Your task to perform on an android device: snooze an email in the gmail app Image 0: 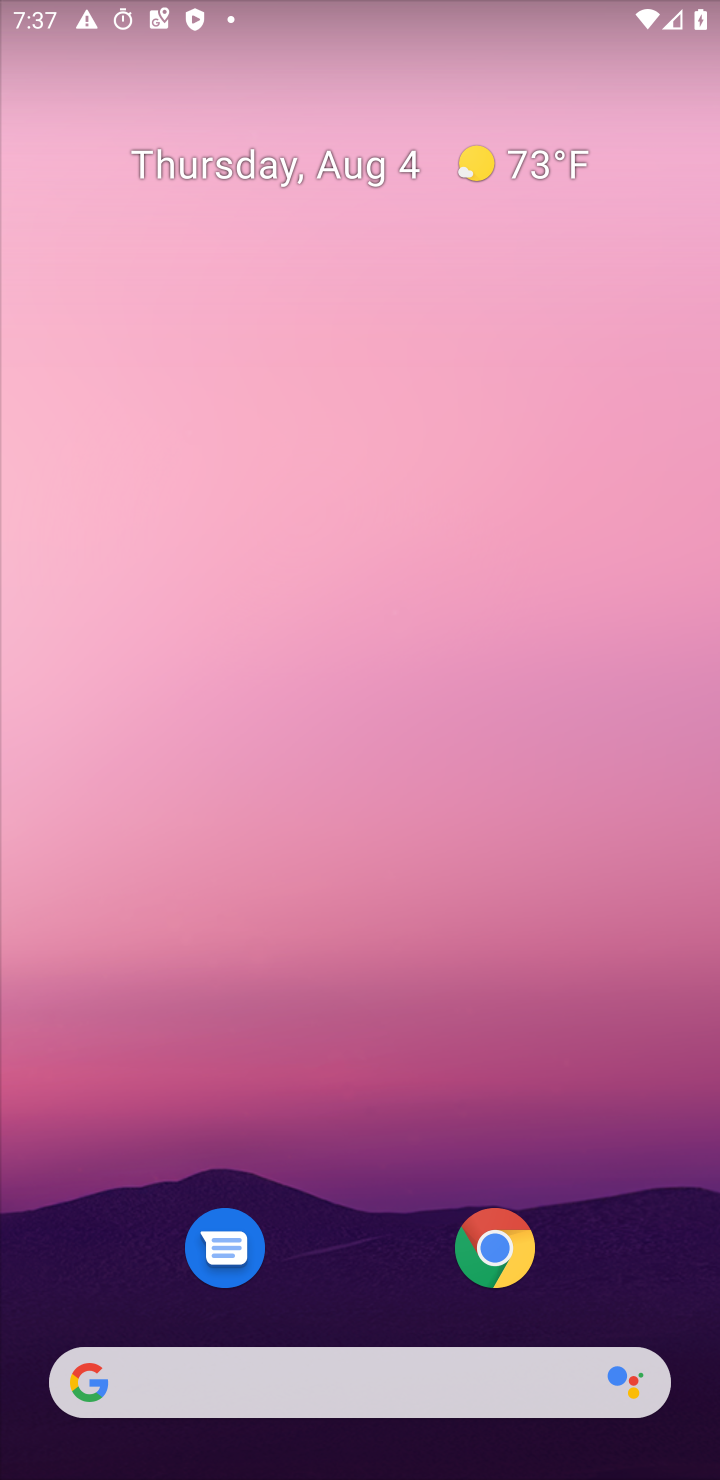
Step 0: press home button
Your task to perform on an android device: snooze an email in the gmail app Image 1: 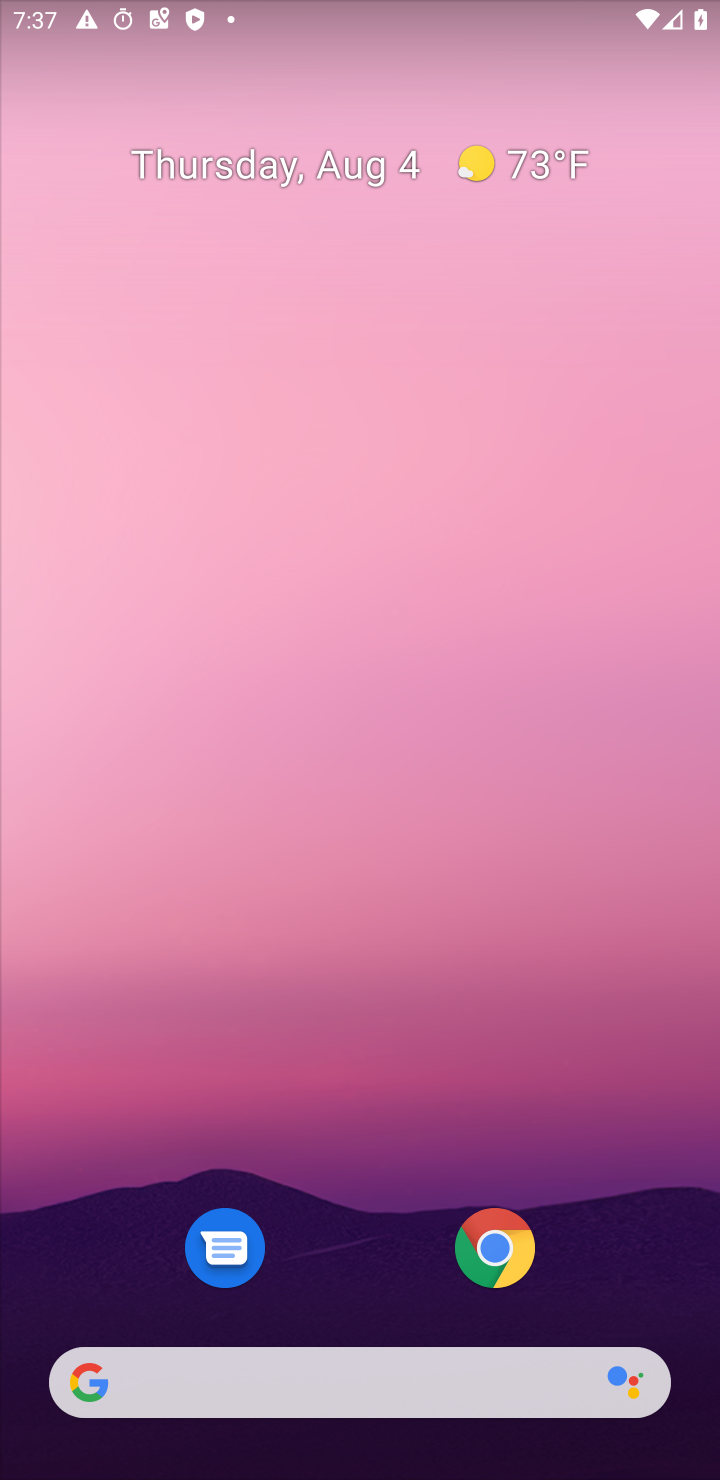
Step 1: drag from (403, 1398) to (339, 418)
Your task to perform on an android device: snooze an email in the gmail app Image 2: 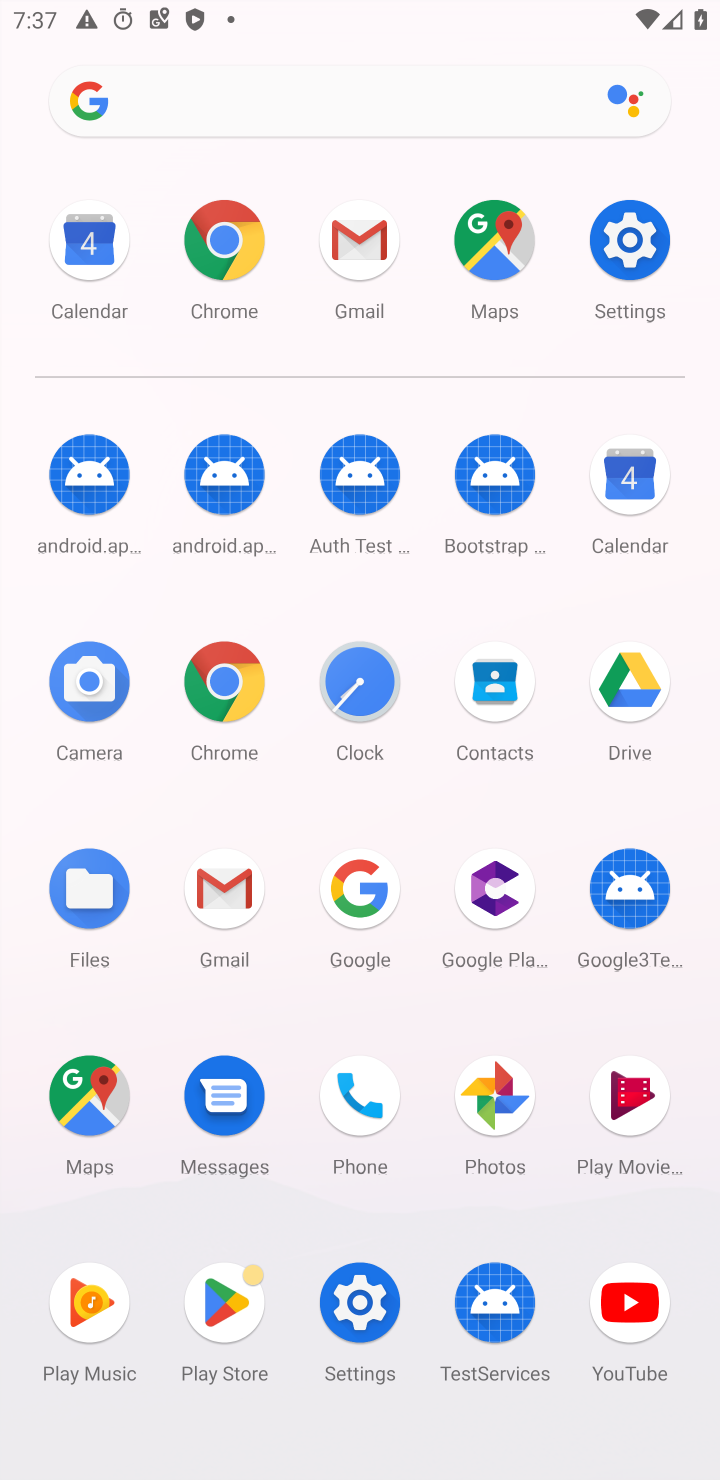
Step 2: click (350, 230)
Your task to perform on an android device: snooze an email in the gmail app Image 3: 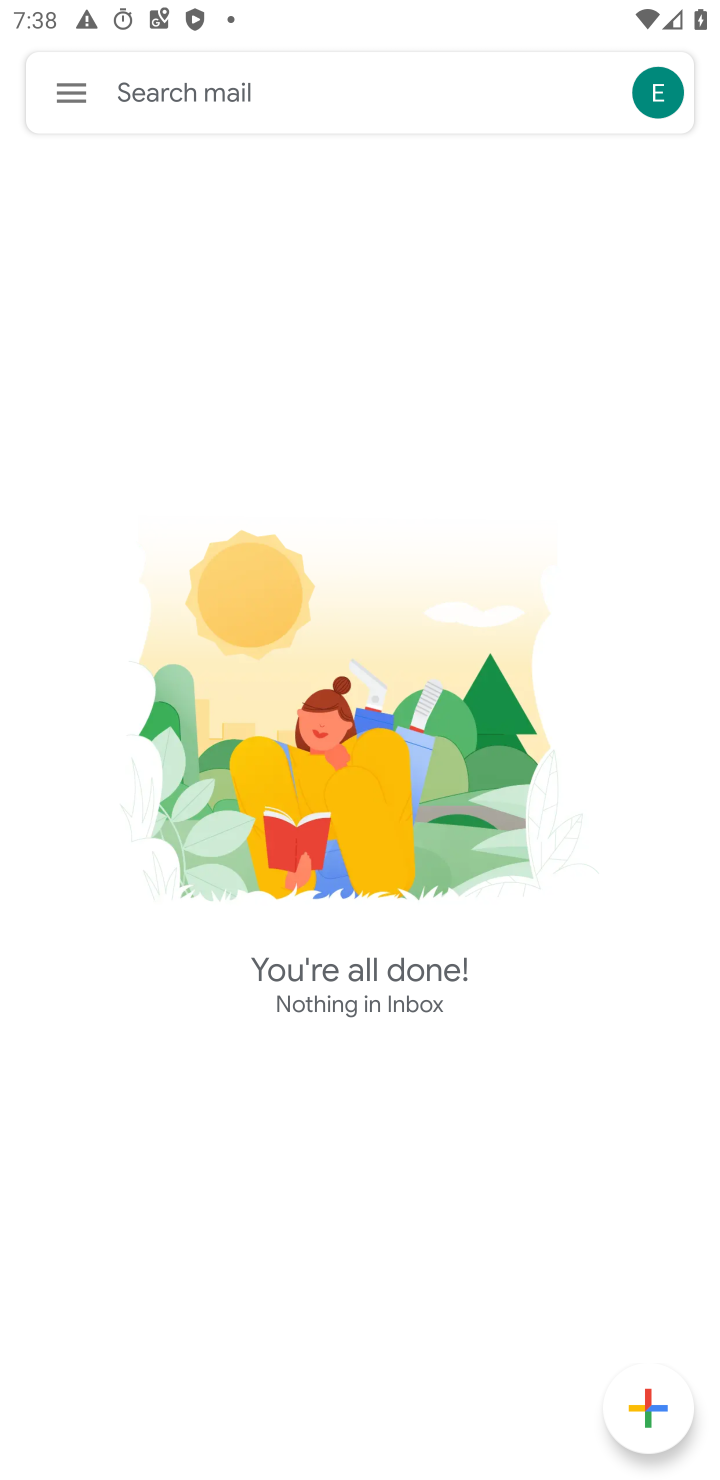
Step 3: click (57, 82)
Your task to perform on an android device: snooze an email in the gmail app Image 4: 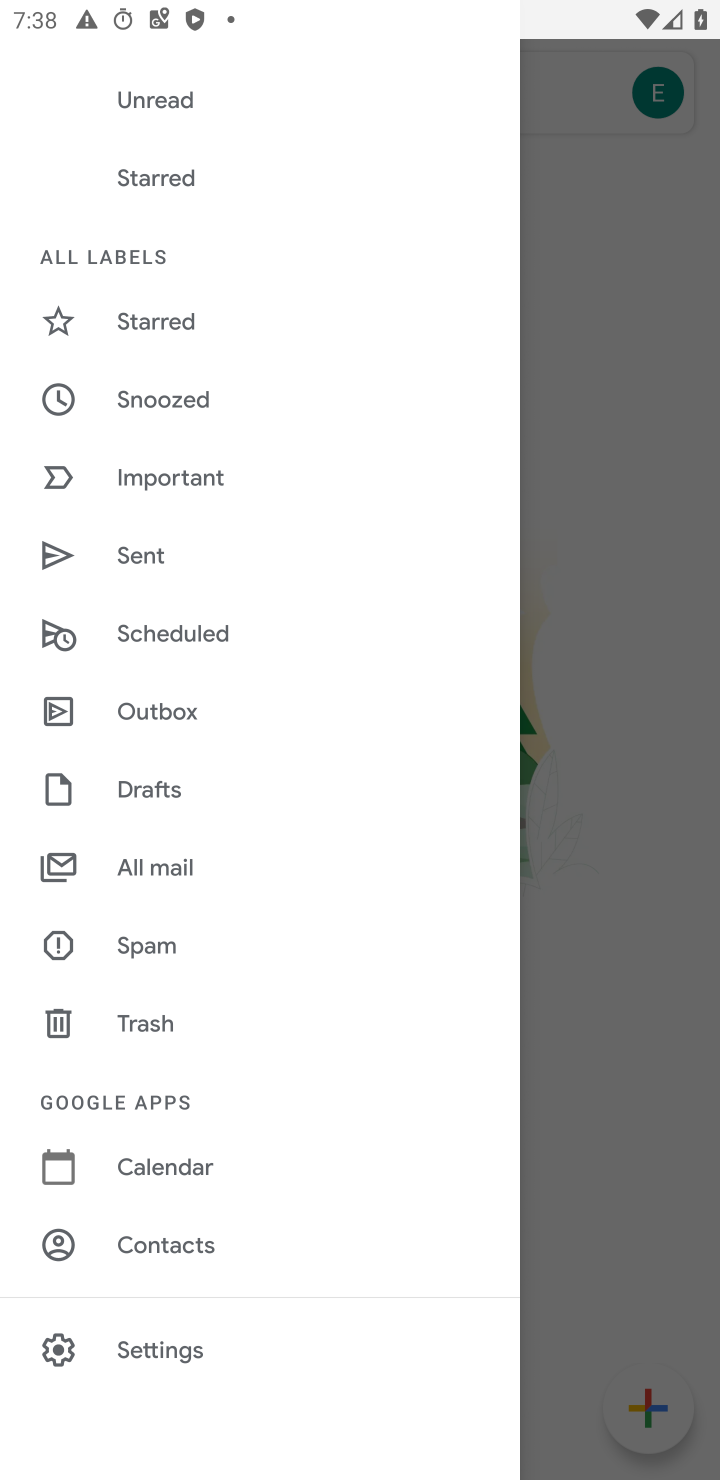
Step 4: drag from (159, 220) to (219, 355)
Your task to perform on an android device: snooze an email in the gmail app Image 5: 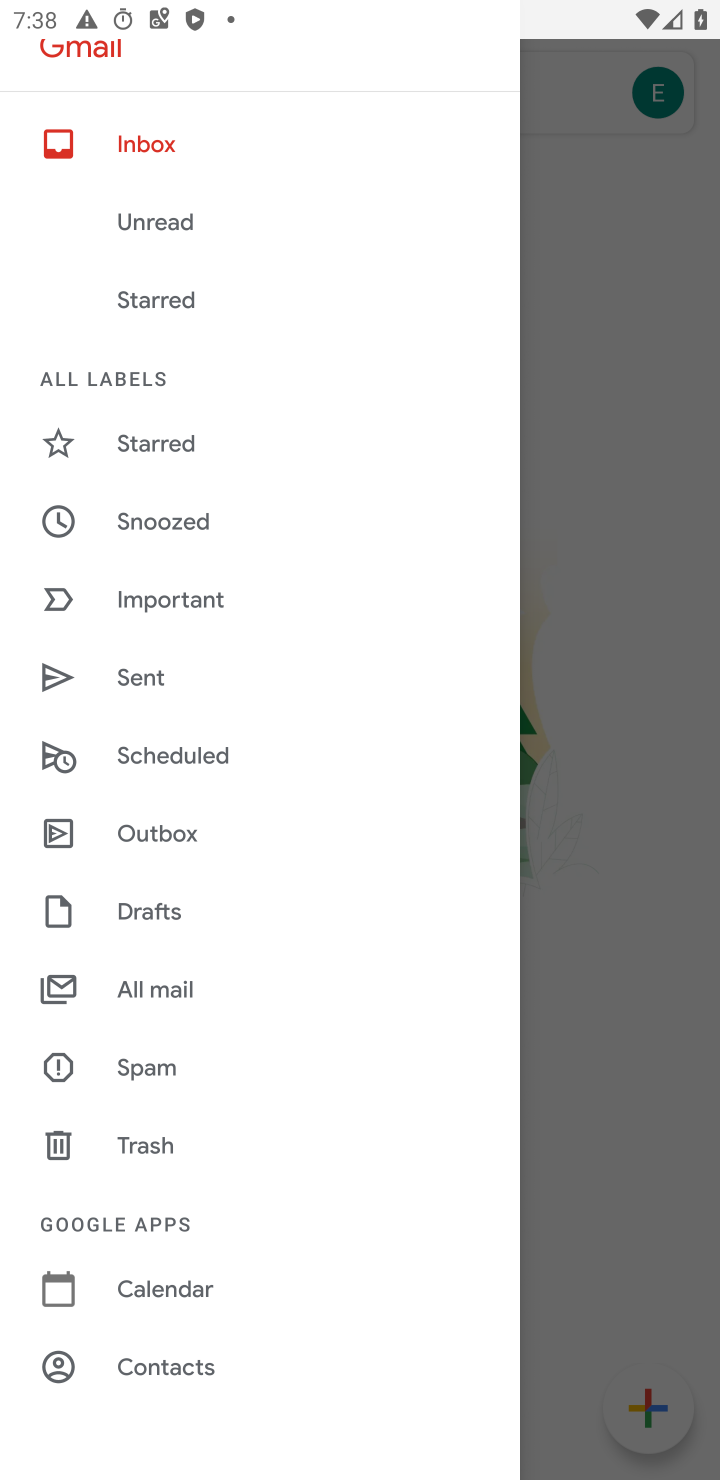
Step 5: click (165, 995)
Your task to perform on an android device: snooze an email in the gmail app Image 6: 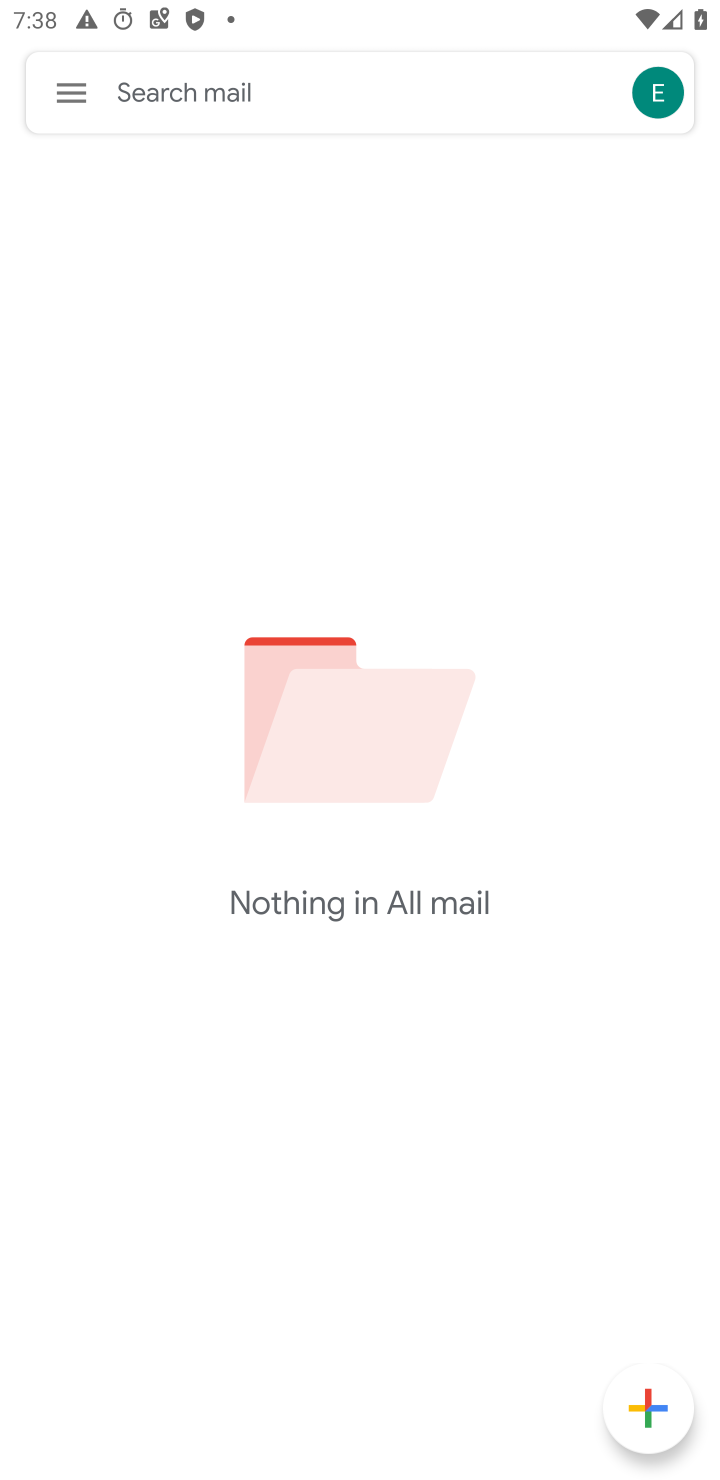
Step 6: task complete